Your task to perform on an android device: Show me the alarms in the clock app Image 0: 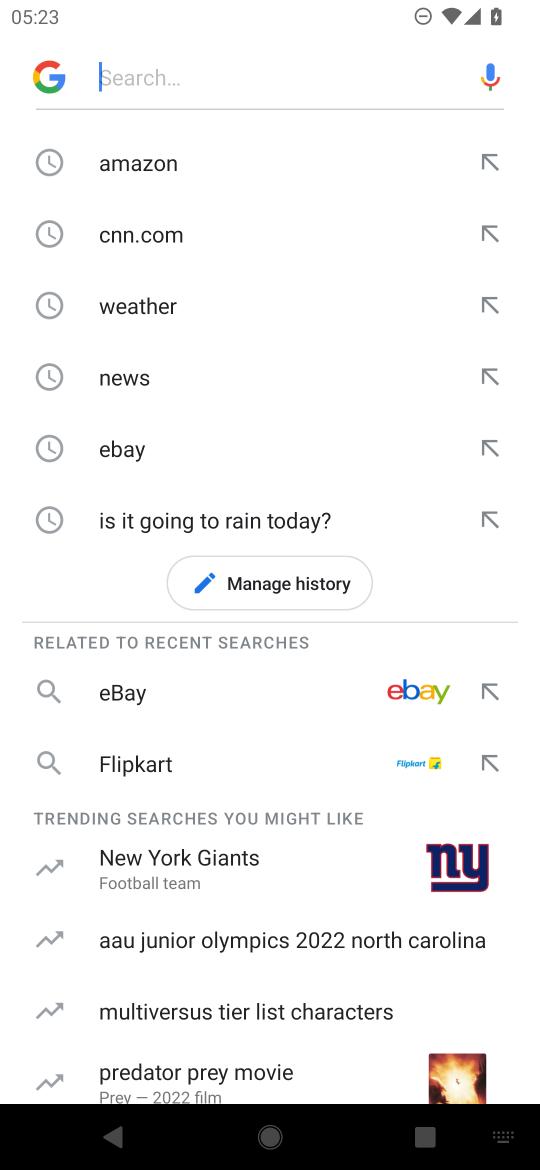
Step 0: press home button
Your task to perform on an android device: Show me the alarms in the clock app Image 1: 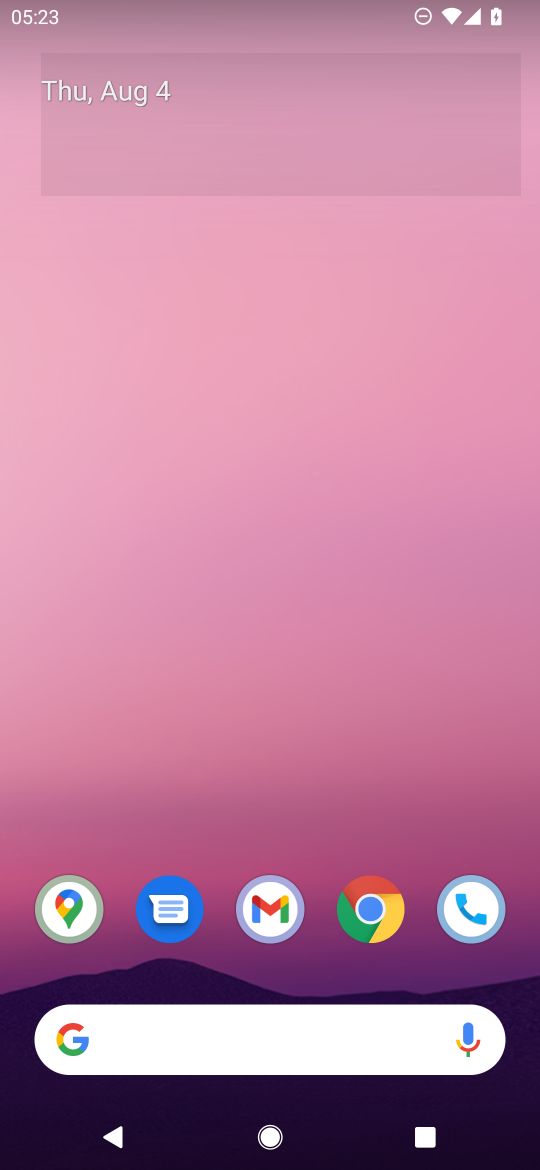
Step 1: drag from (308, 981) to (314, 106)
Your task to perform on an android device: Show me the alarms in the clock app Image 2: 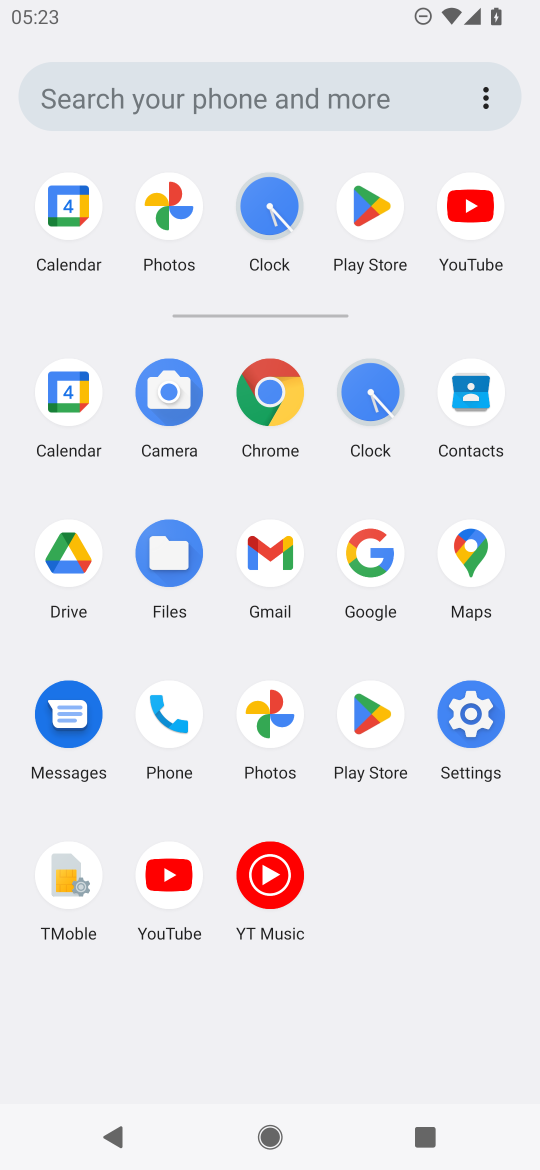
Step 2: click (265, 197)
Your task to perform on an android device: Show me the alarms in the clock app Image 3: 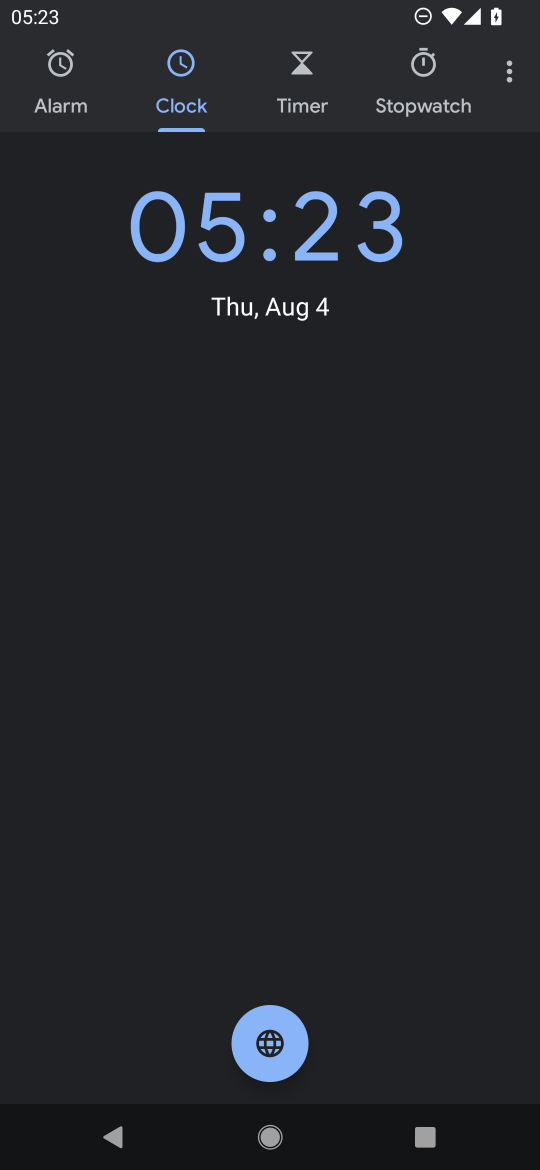
Step 3: click (67, 65)
Your task to perform on an android device: Show me the alarms in the clock app Image 4: 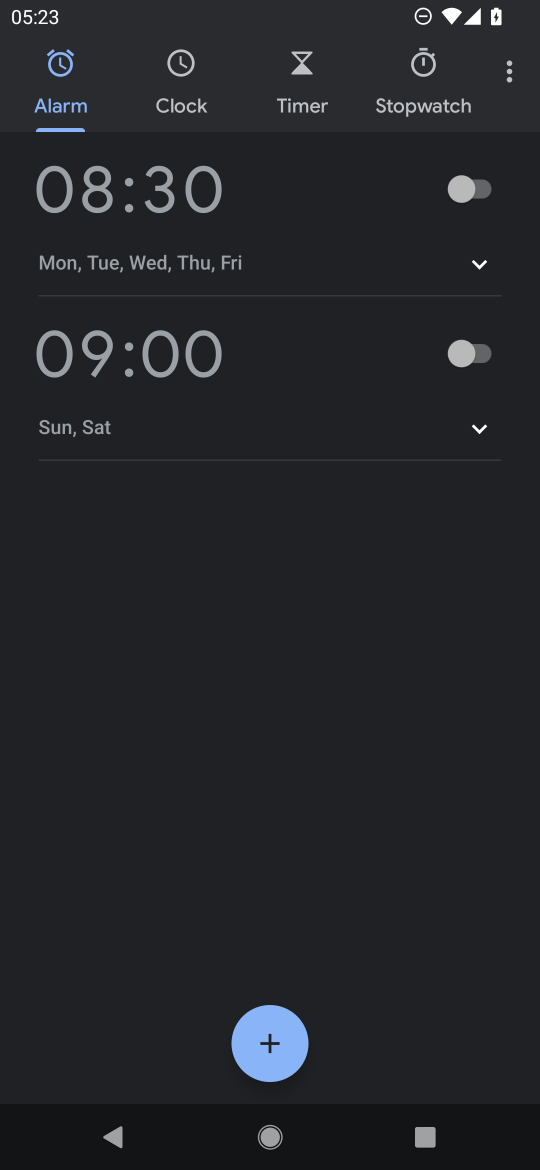
Step 4: task complete